Your task to perform on an android device: Open Chrome and go to settings Image 0: 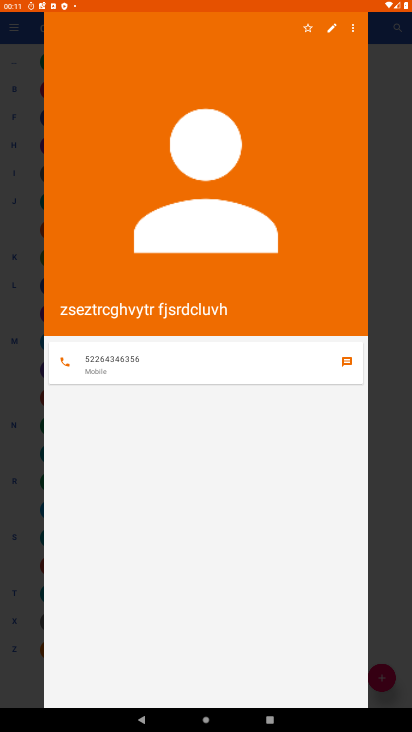
Step 0: press home button
Your task to perform on an android device: Open Chrome and go to settings Image 1: 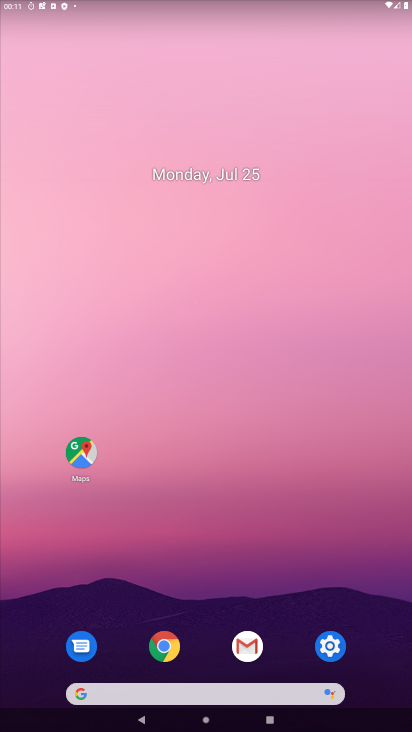
Step 1: click (164, 630)
Your task to perform on an android device: Open Chrome and go to settings Image 2: 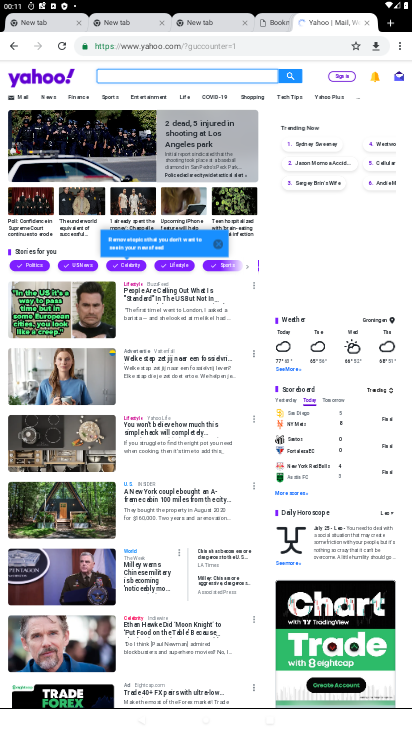
Step 2: click (401, 46)
Your task to perform on an android device: Open Chrome and go to settings Image 3: 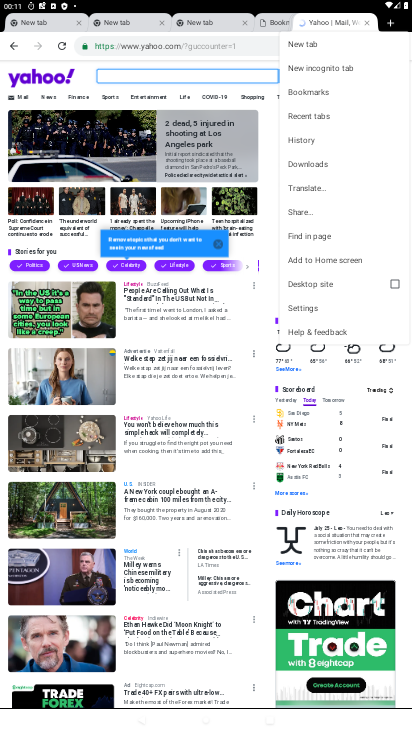
Step 3: click (298, 320)
Your task to perform on an android device: Open Chrome and go to settings Image 4: 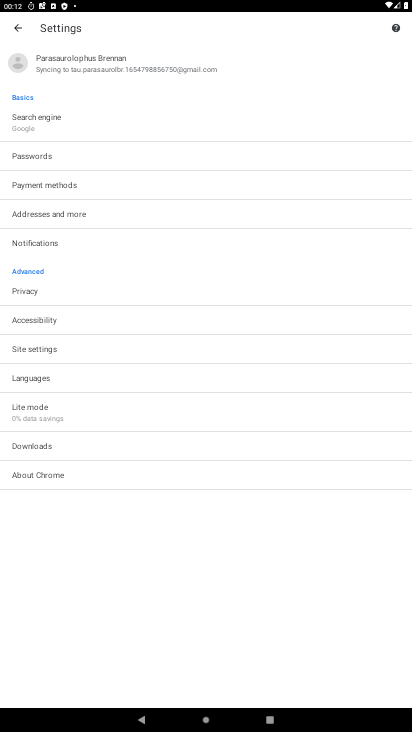
Step 4: task complete